Your task to perform on an android device: find which apps use the phone's location Image 0: 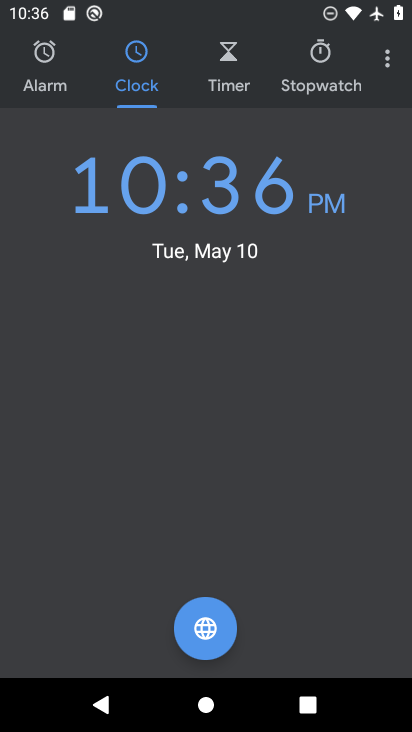
Step 0: press home button
Your task to perform on an android device: find which apps use the phone's location Image 1: 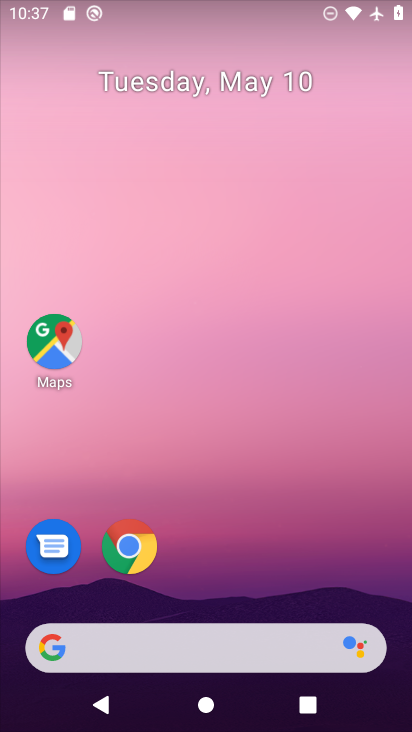
Step 1: drag from (292, 587) to (316, 62)
Your task to perform on an android device: find which apps use the phone's location Image 2: 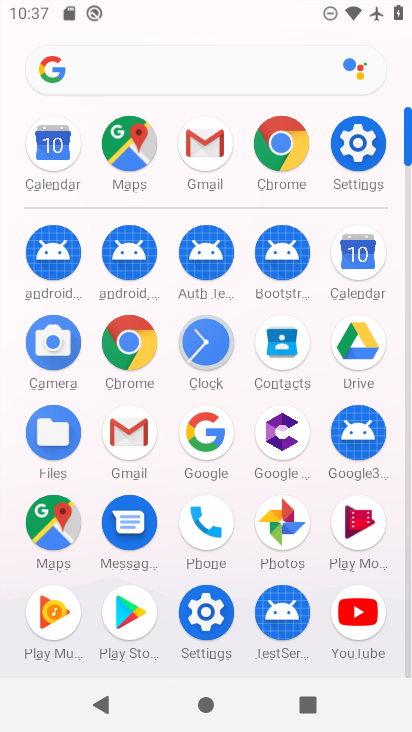
Step 2: click (397, 144)
Your task to perform on an android device: find which apps use the phone's location Image 3: 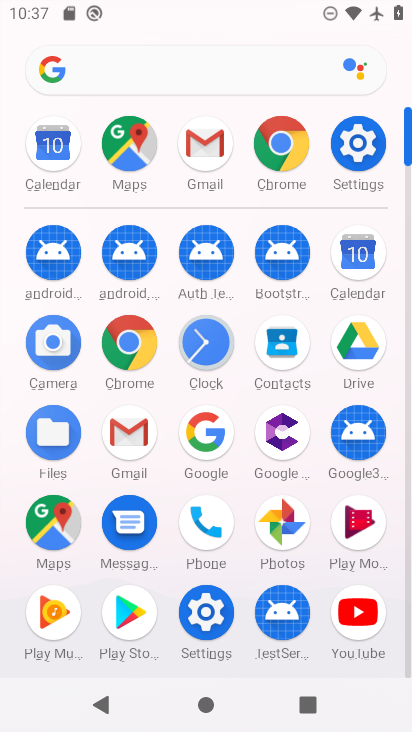
Step 3: click (366, 137)
Your task to perform on an android device: find which apps use the phone's location Image 4: 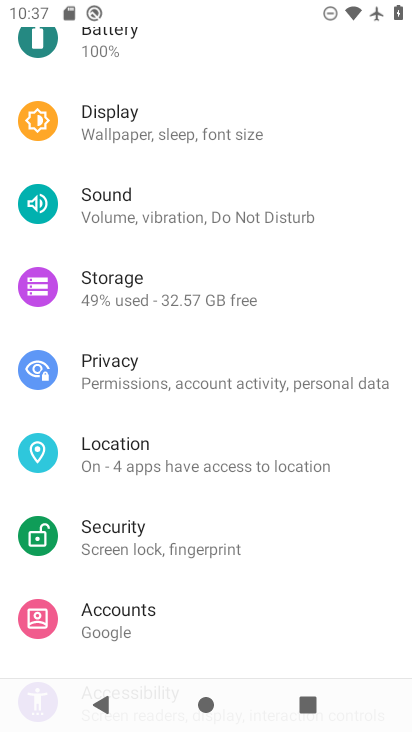
Step 4: click (154, 459)
Your task to perform on an android device: find which apps use the phone's location Image 5: 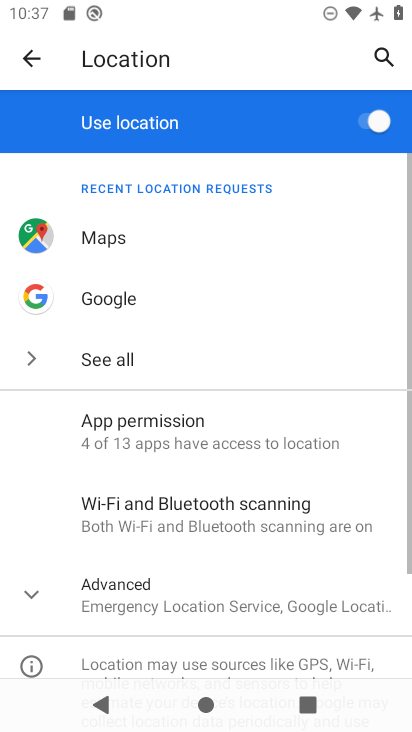
Step 5: click (165, 438)
Your task to perform on an android device: find which apps use the phone's location Image 6: 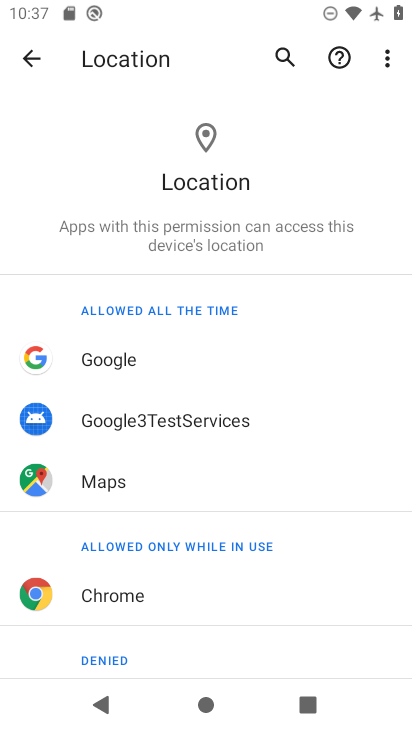
Step 6: task complete